Your task to perform on an android device: Open the phone app and click the voicemail tab. Image 0: 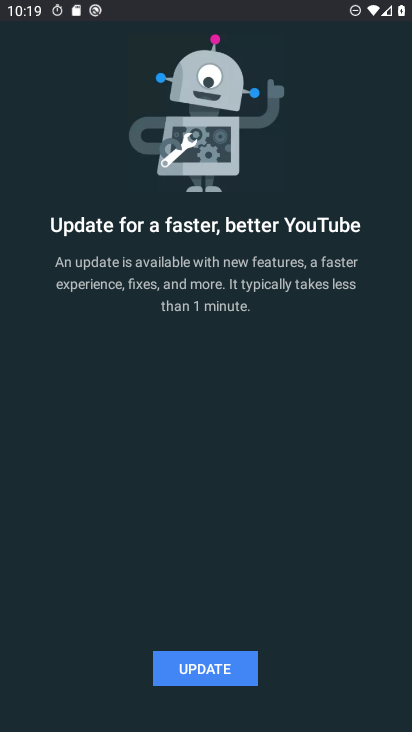
Step 0: press home button
Your task to perform on an android device: Open the phone app and click the voicemail tab. Image 1: 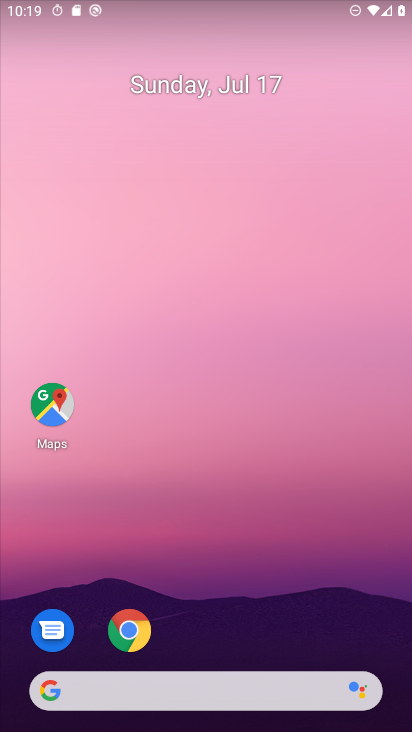
Step 1: drag from (160, 650) to (261, 6)
Your task to perform on an android device: Open the phone app and click the voicemail tab. Image 2: 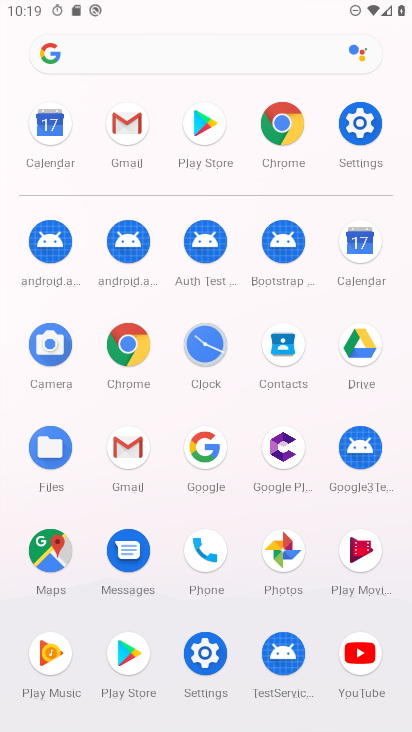
Step 2: click (185, 545)
Your task to perform on an android device: Open the phone app and click the voicemail tab. Image 3: 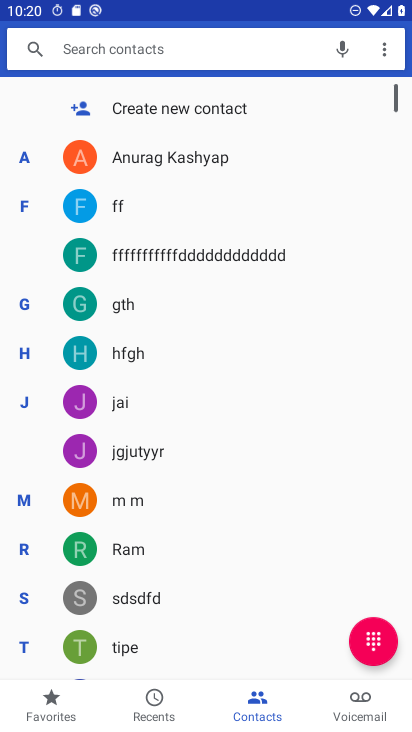
Step 3: click (356, 698)
Your task to perform on an android device: Open the phone app and click the voicemail tab. Image 4: 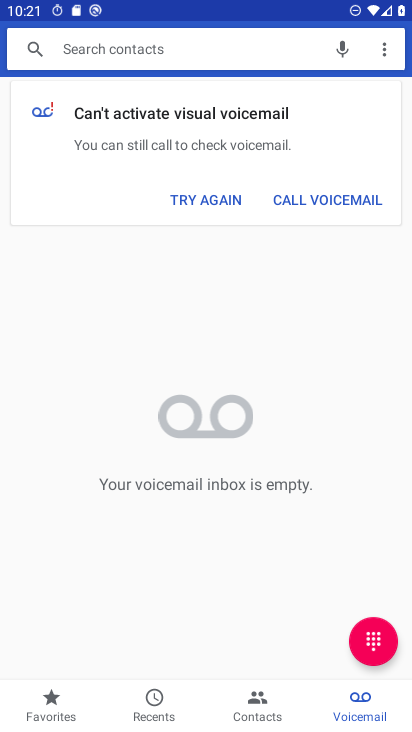
Step 4: task complete